Your task to perform on an android device: Empty the shopping cart on ebay.com. Search for razer naga on ebay.com, select the first entry, add it to the cart, then select checkout. Image 0: 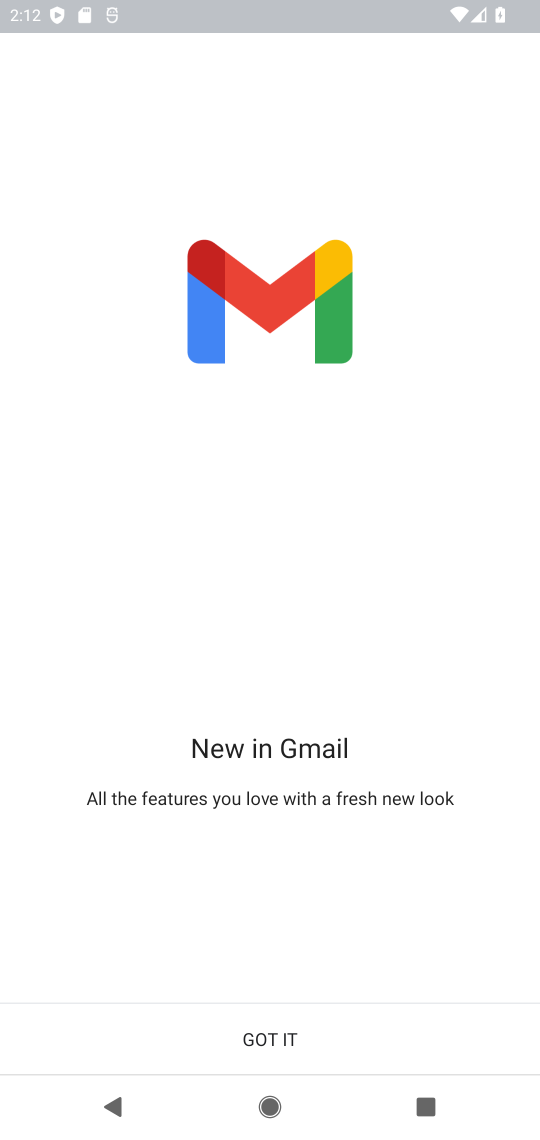
Step 0: press home button
Your task to perform on an android device: Empty the shopping cart on ebay.com. Search for razer naga on ebay.com, select the first entry, add it to the cart, then select checkout. Image 1: 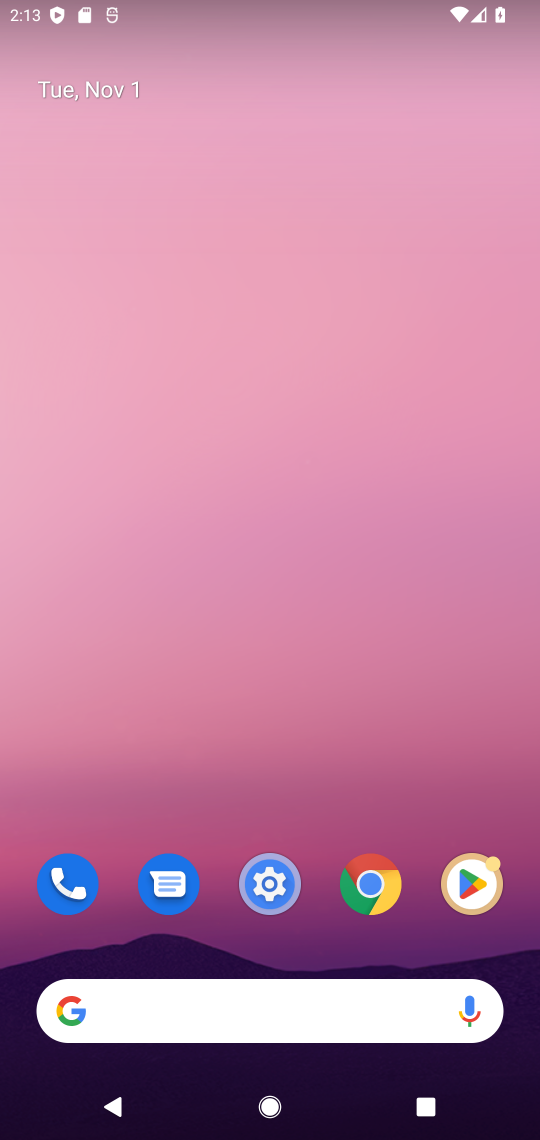
Step 1: click (100, 1019)
Your task to perform on an android device: Empty the shopping cart on ebay.com. Search for razer naga on ebay.com, select the first entry, add it to the cart, then select checkout. Image 2: 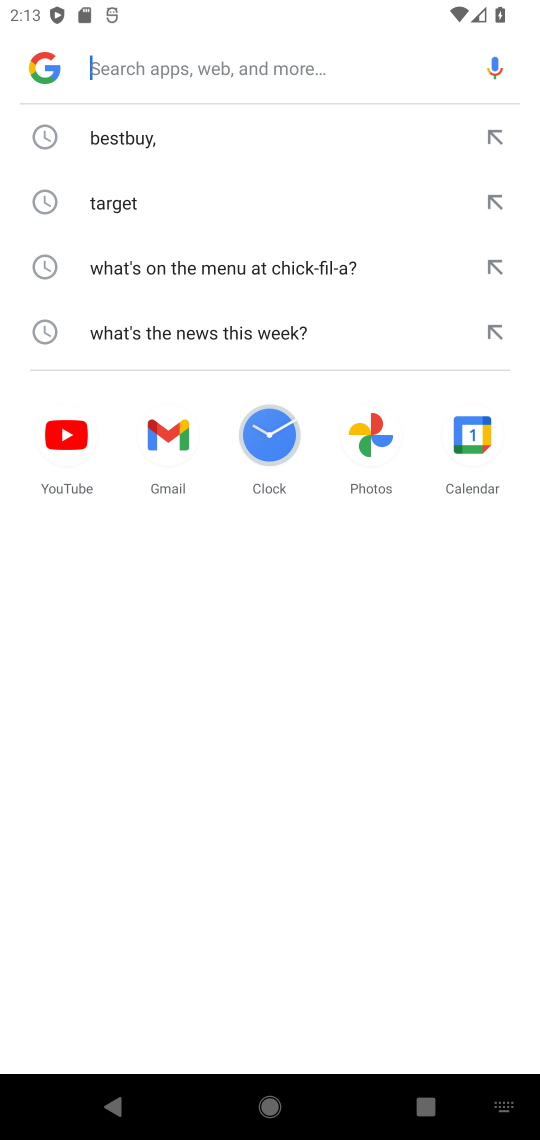
Step 2: type "ebay.com."
Your task to perform on an android device: Empty the shopping cart on ebay.com. Search for razer naga on ebay.com, select the first entry, add it to the cart, then select checkout. Image 3: 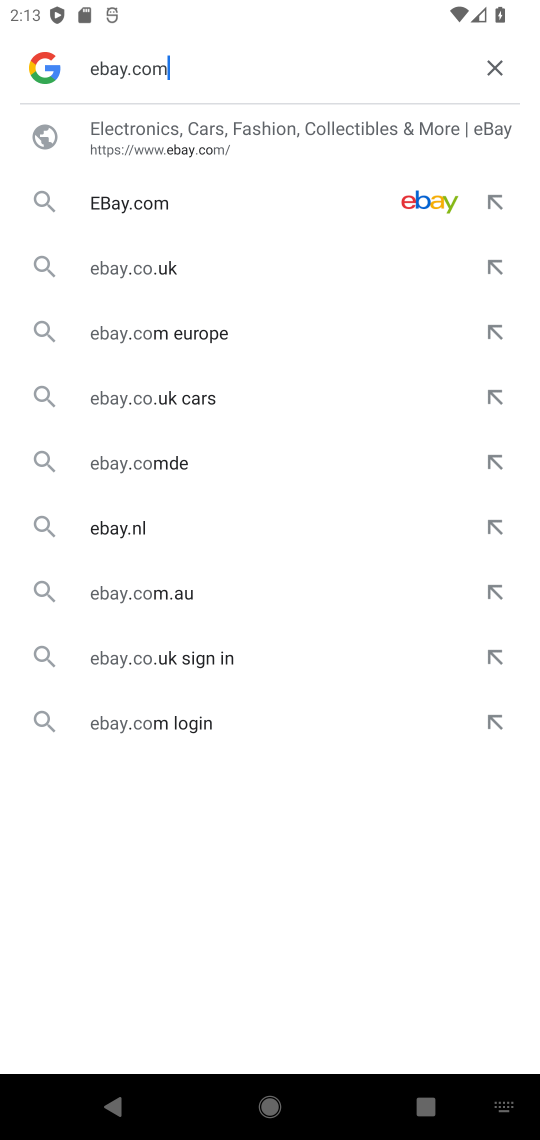
Step 3: press enter
Your task to perform on an android device: Empty the shopping cart on ebay.com. Search for razer naga on ebay.com, select the first entry, add it to the cart, then select checkout. Image 4: 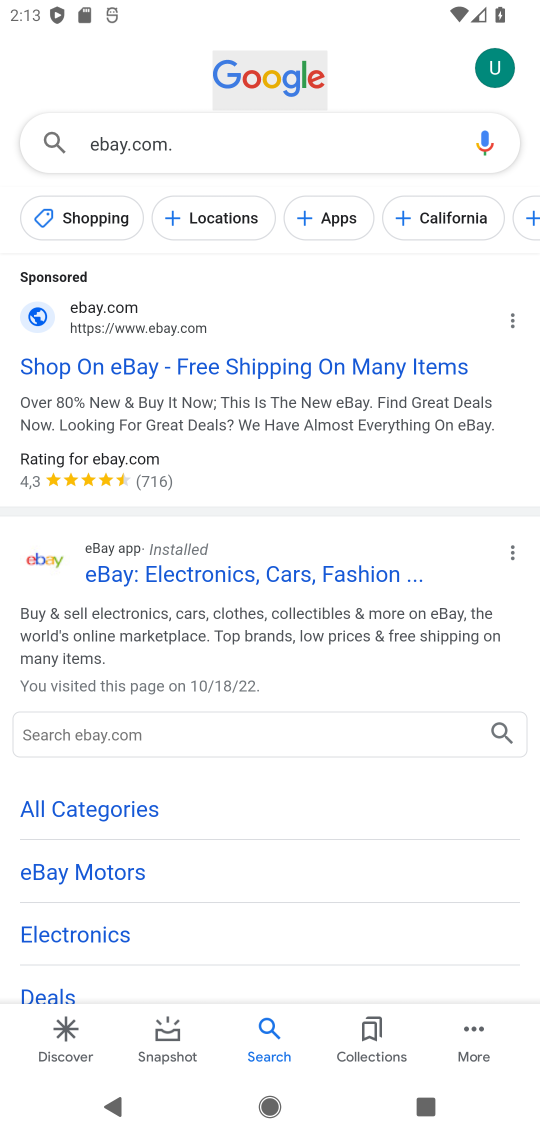
Step 4: click (251, 576)
Your task to perform on an android device: Empty the shopping cart on ebay.com. Search for razer naga on ebay.com, select the first entry, add it to the cart, then select checkout. Image 5: 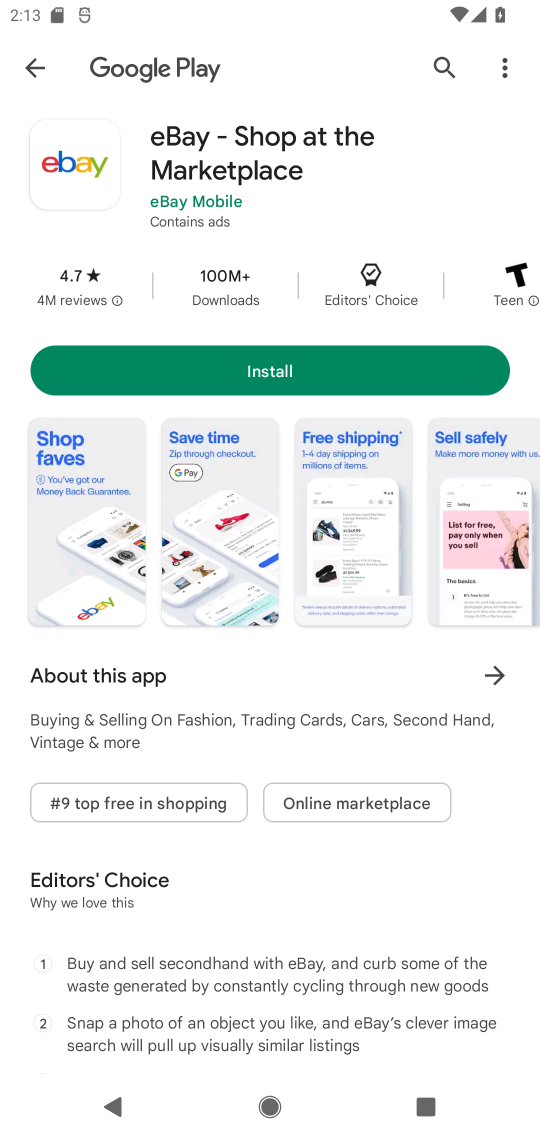
Step 5: press back button
Your task to perform on an android device: Empty the shopping cart on ebay.com. Search for razer naga on ebay.com, select the first entry, add it to the cart, then select checkout. Image 6: 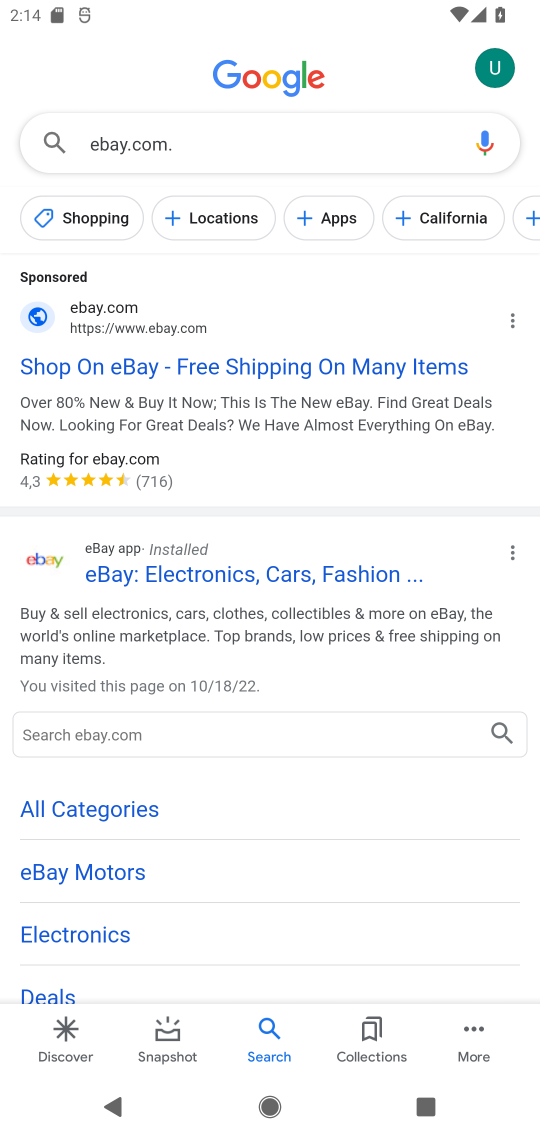
Step 6: click (324, 373)
Your task to perform on an android device: Empty the shopping cart on ebay.com. Search for razer naga on ebay.com, select the first entry, add it to the cart, then select checkout. Image 7: 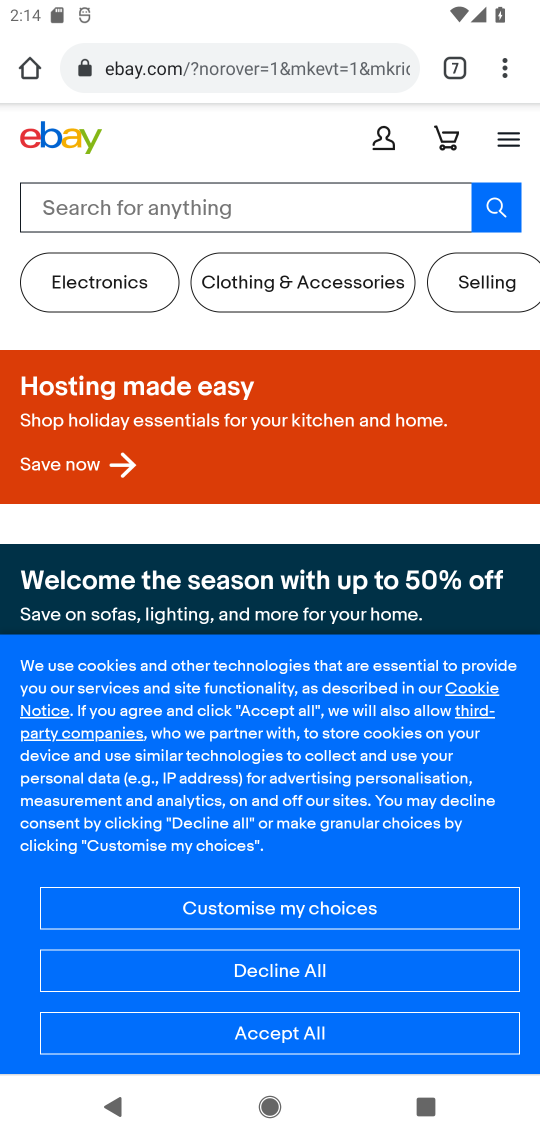
Step 7: click (280, 1030)
Your task to perform on an android device: Empty the shopping cart on ebay.com. Search for razer naga on ebay.com, select the first entry, add it to the cart, then select checkout. Image 8: 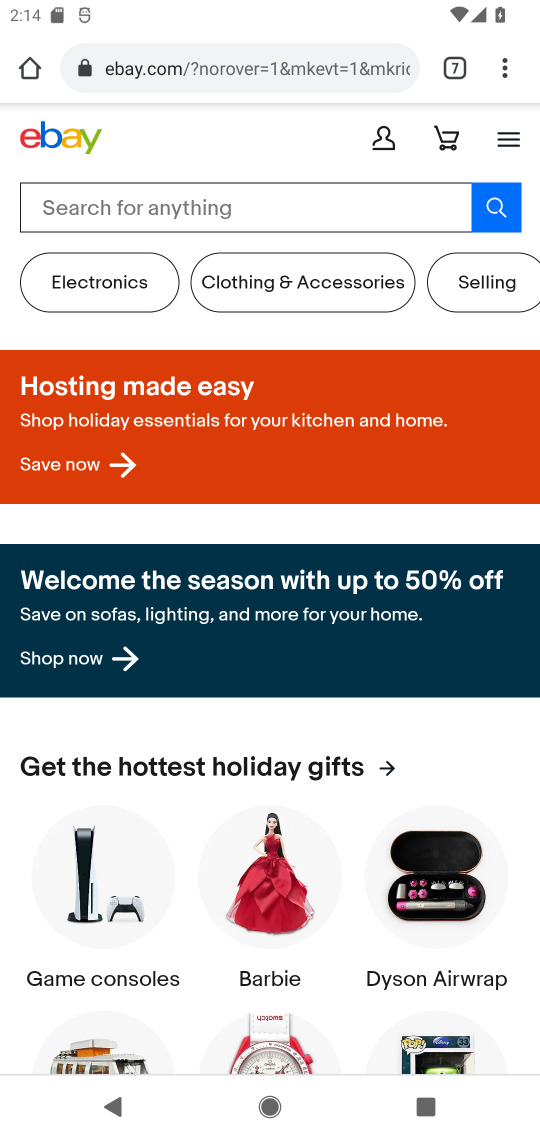
Step 8: click (68, 204)
Your task to perform on an android device: Empty the shopping cart on ebay.com. Search for razer naga on ebay.com, select the first entry, add it to the cart, then select checkout. Image 9: 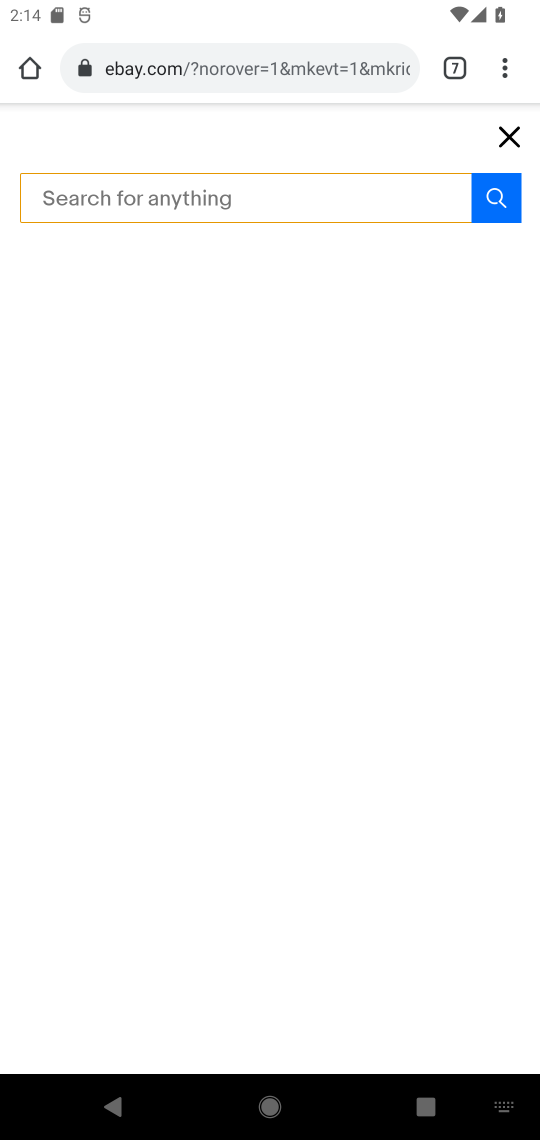
Step 9: type "razer naga"
Your task to perform on an android device: Empty the shopping cart on ebay.com. Search for razer naga on ebay.com, select the first entry, add it to the cart, then select checkout. Image 10: 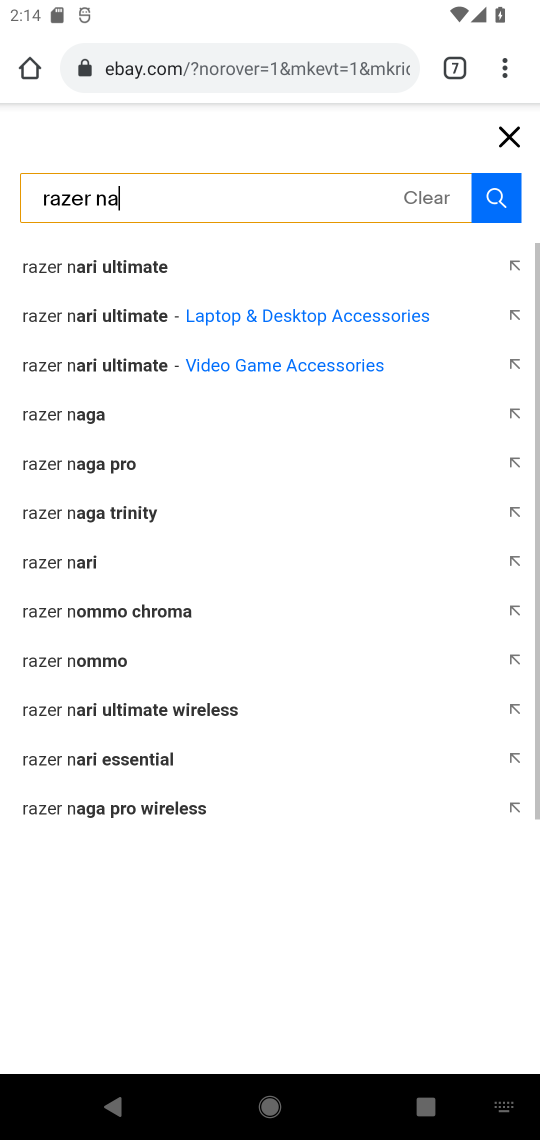
Step 10: press enter
Your task to perform on an android device: Empty the shopping cart on ebay.com. Search for razer naga on ebay.com, select the first entry, add it to the cart, then select checkout. Image 11: 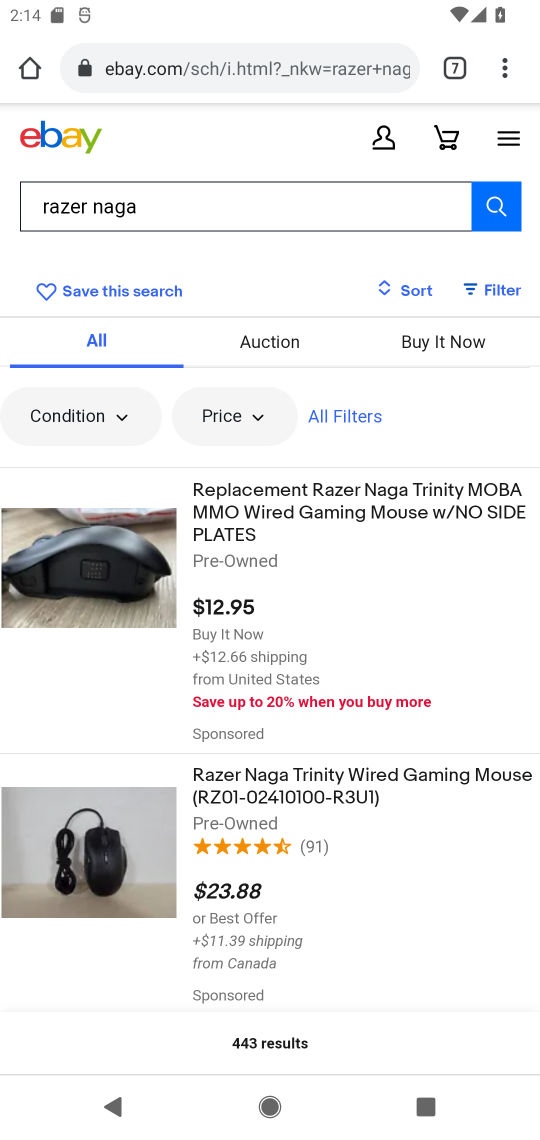
Step 11: drag from (337, 851) to (351, 620)
Your task to perform on an android device: Empty the shopping cart on ebay.com. Search for razer naga on ebay.com, select the first entry, add it to the cart, then select checkout. Image 12: 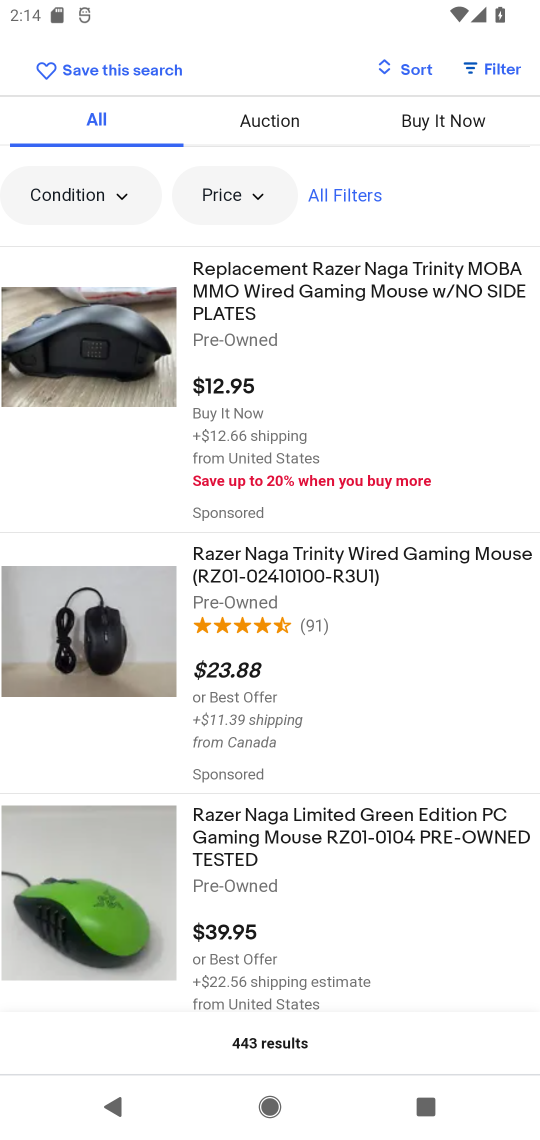
Step 12: drag from (341, 805) to (347, 561)
Your task to perform on an android device: Empty the shopping cart on ebay.com. Search for razer naga on ebay.com, select the first entry, add it to the cart, then select checkout. Image 13: 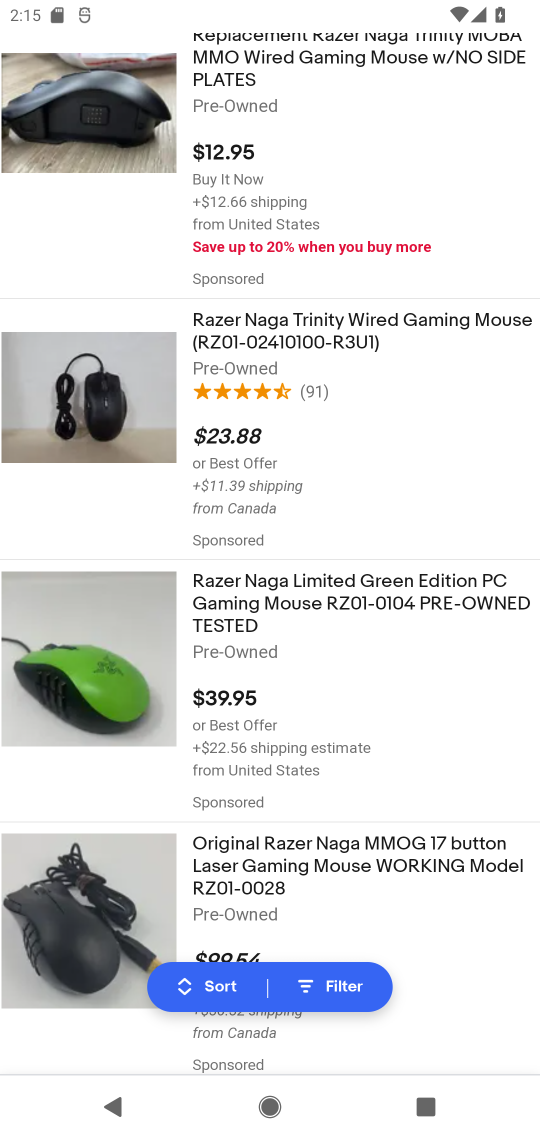
Step 13: click (310, 324)
Your task to perform on an android device: Empty the shopping cart on ebay.com. Search for razer naga on ebay.com, select the first entry, add it to the cart, then select checkout. Image 14: 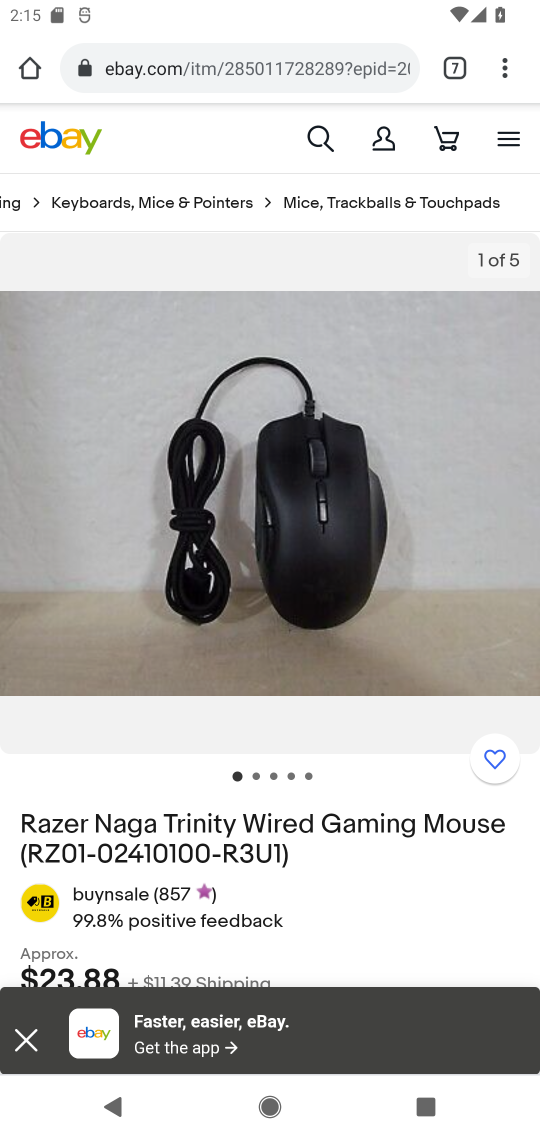
Step 14: drag from (268, 871) to (287, 425)
Your task to perform on an android device: Empty the shopping cart on ebay.com. Search for razer naga on ebay.com, select the first entry, add it to the cart, then select checkout. Image 15: 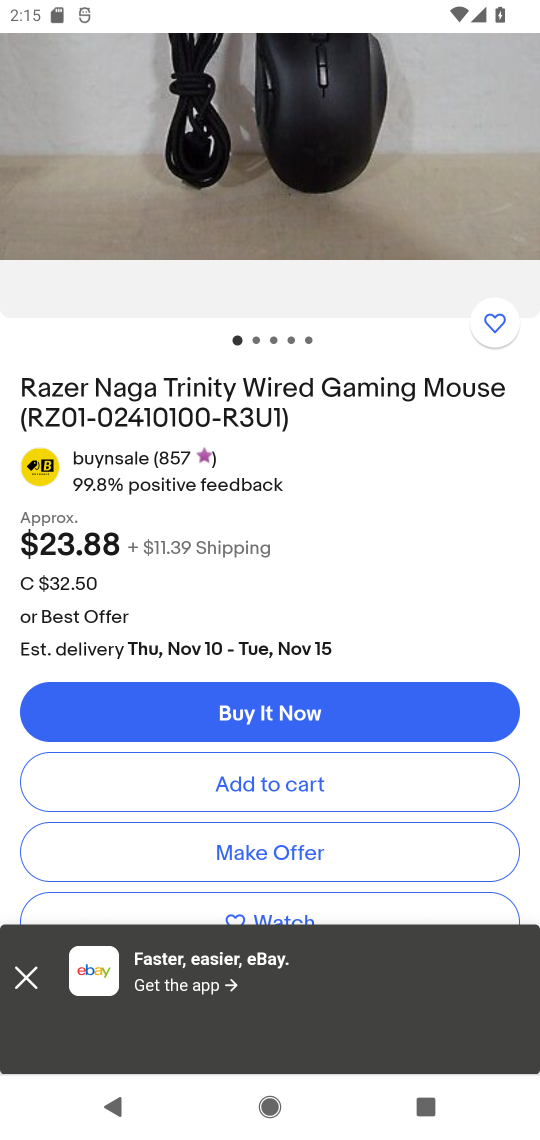
Step 15: click (257, 787)
Your task to perform on an android device: Empty the shopping cart on ebay.com. Search for razer naga on ebay.com, select the first entry, add it to the cart, then select checkout. Image 16: 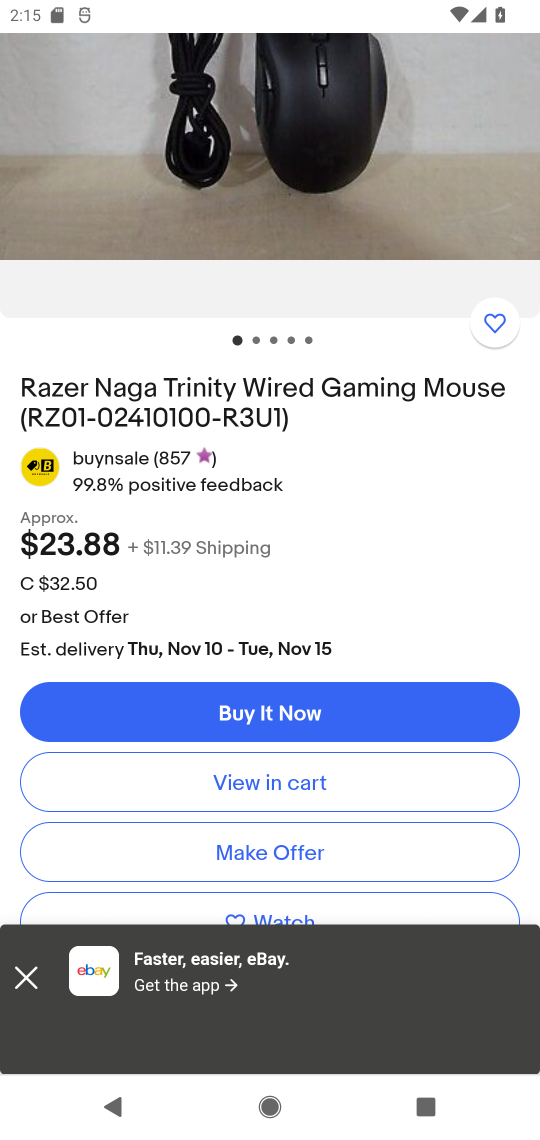
Step 16: click (254, 786)
Your task to perform on an android device: Empty the shopping cart on ebay.com. Search for razer naga on ebay.com, select the first entry, add it to the cart, then select checkout. Image 17: 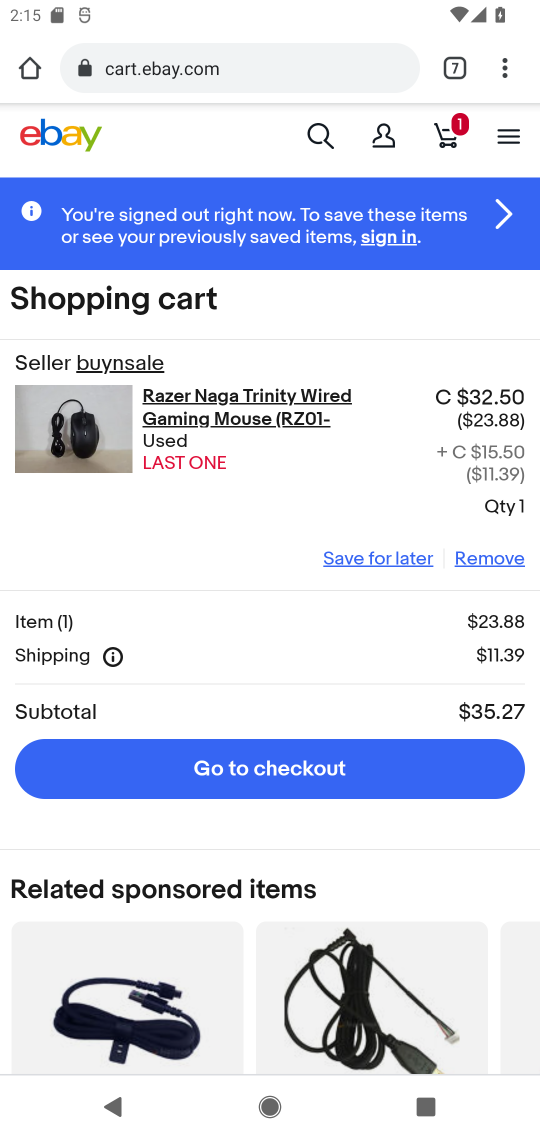
Step 17: click (262, 781)
Your task to perform on an android device: Empty the shopping cart on ebay.com. Search for razer naga on ebay.com, select the first entry, add it to the cart, then select checkout. Image 18: 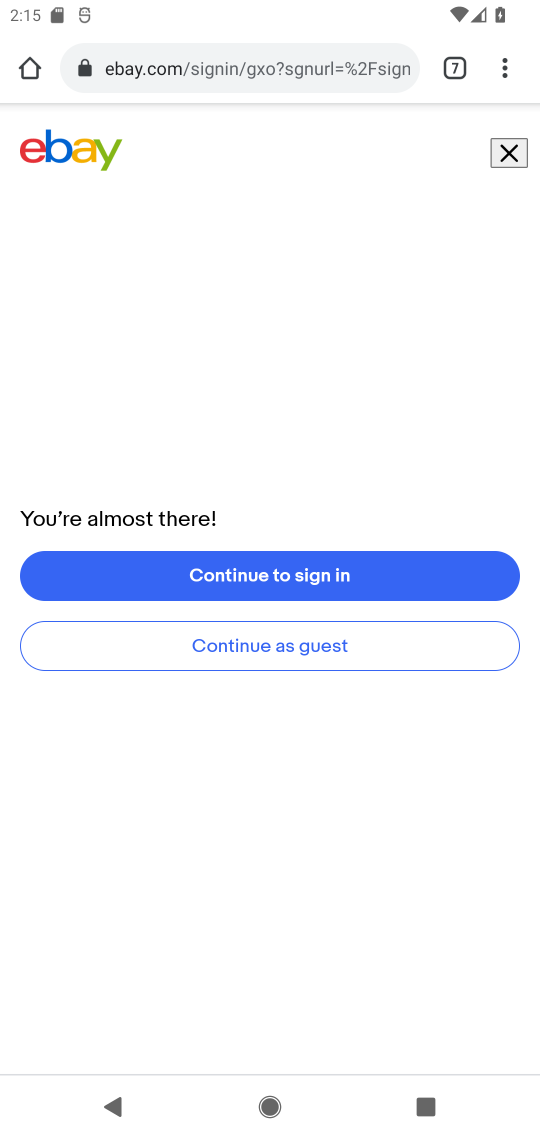
Step 18: task complete